Your task to perform on an android device: Go to Yahoo.com Image 0: 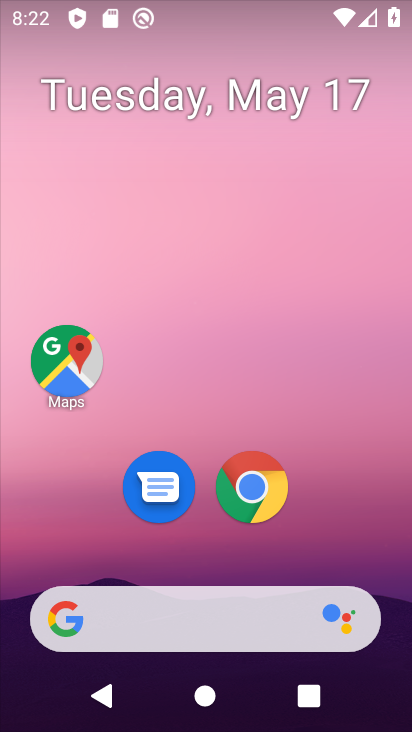
Step 0: press home button
Your task to perform on an android device: Go to Yahoo.com Image 1: 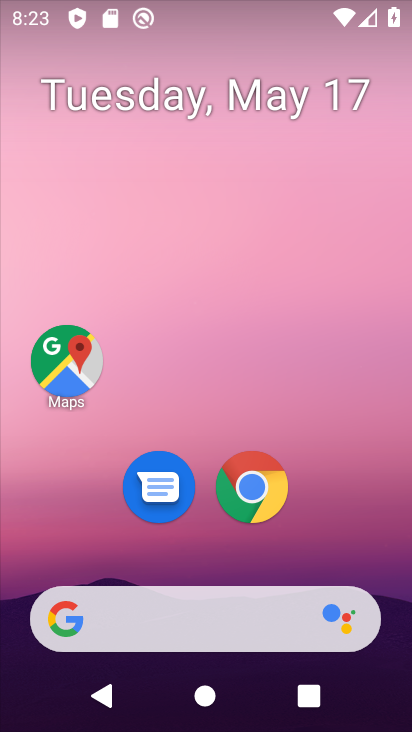
Step 1: drag from (268, 674) to (270, 274)
Your task to perform on an android device: Go to Yahoo.com Image 2: 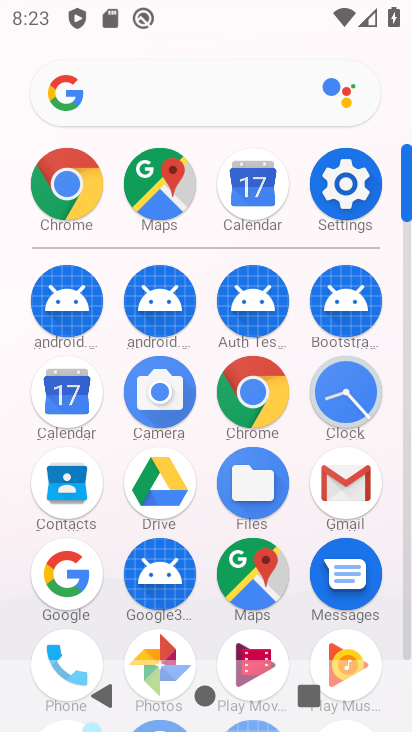
Step 2: click (246, 389)
Your task to perform on an android device: Go to Yahoo.com Image 3: 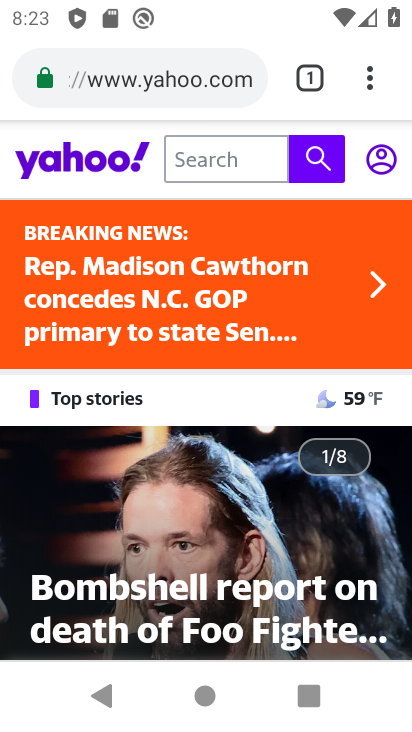
Step 3: task complete